Your task to perform on an android device: Go to display settings Image 0: 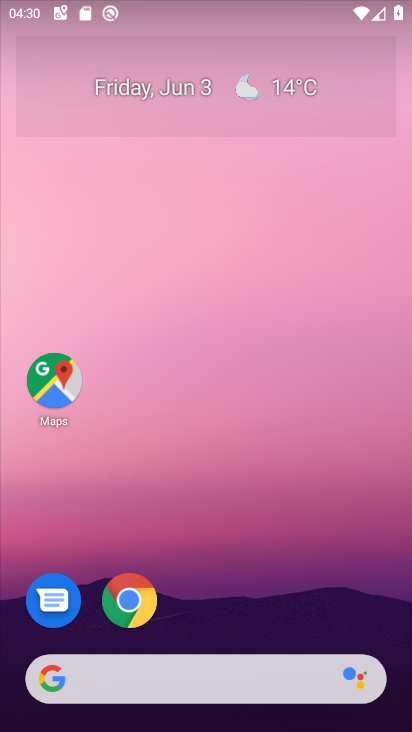
Step 0: drag from (261, 484) to (234, 121)
Your task to perform on an android device: Go to display settings Image 1: 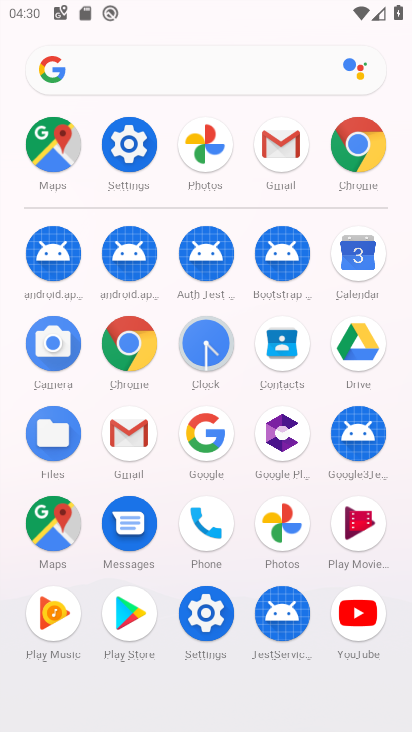
Step 1: click (119, 136)
Your task to perform on an android device: Go to display settings Image 2: 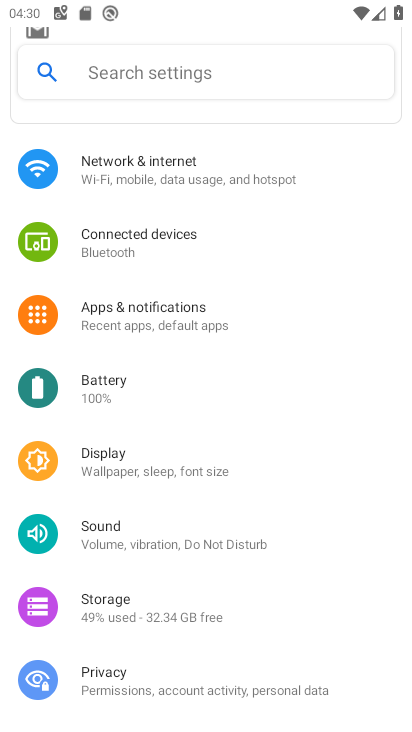
Step 2: click (112, 474)
Your task to perform on an android device: Go to display settings Image 3: 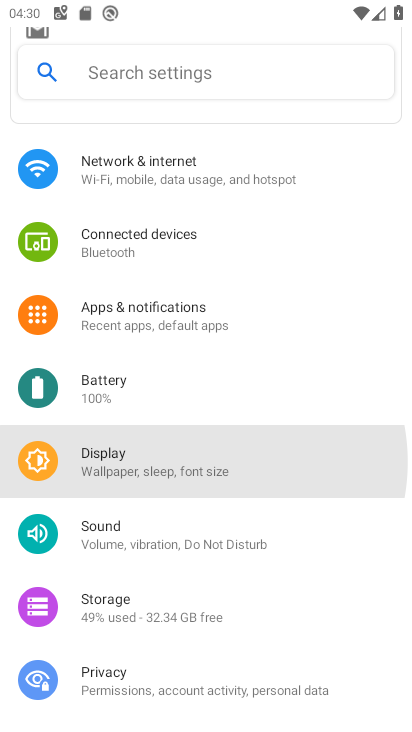
Step 3: click (92, 456)
Your task to perform on an android device: Go to display settings Image 4: 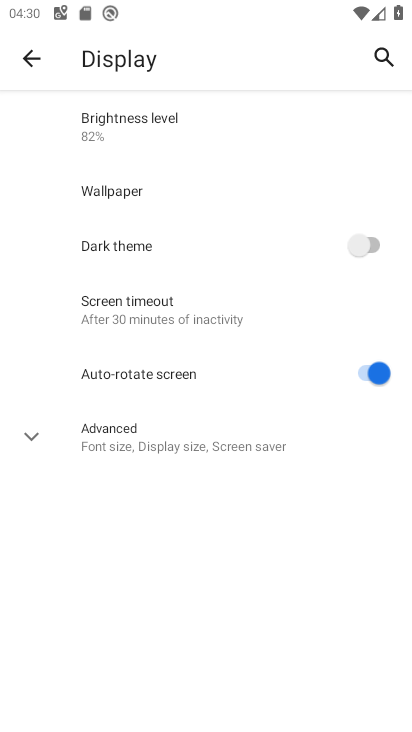
Step 4: task complete